Your task to perform on an android device: See recent photos Image 0: 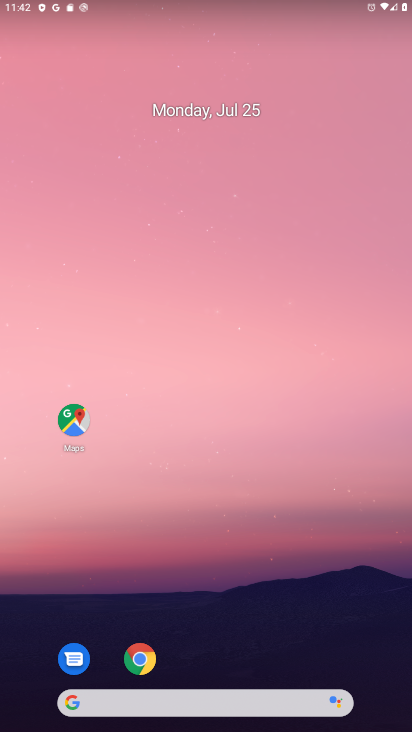
Step 0: drag from (222, 524) to (187, 88)
Your task to perform on an android device: See recent photos Image 1: 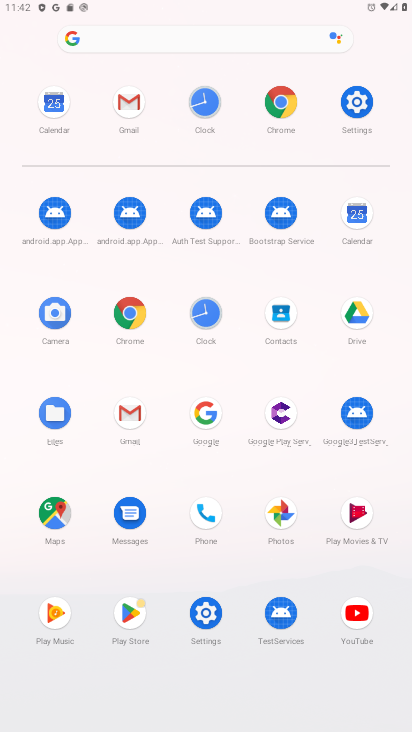
Step 1: click (282, 511)
Your task to perform on an android device: See recent photos Image 2: 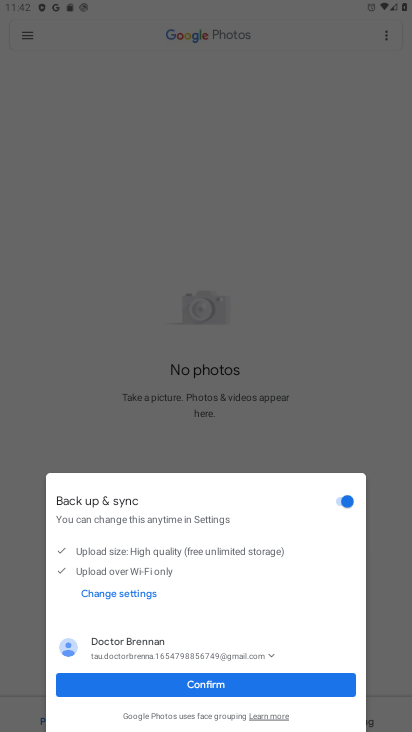
Step 2: click (210, 680)
Your task to perform on an android device: See recent photos Image 3: 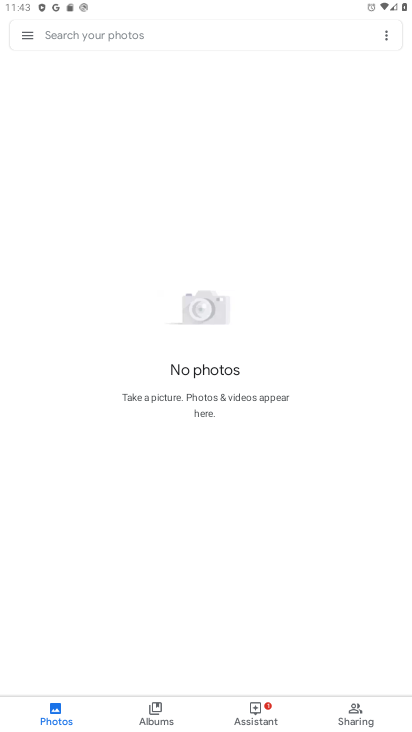
Step 3: task complete